Your task to perform on an android device: Go to Google Image 0: 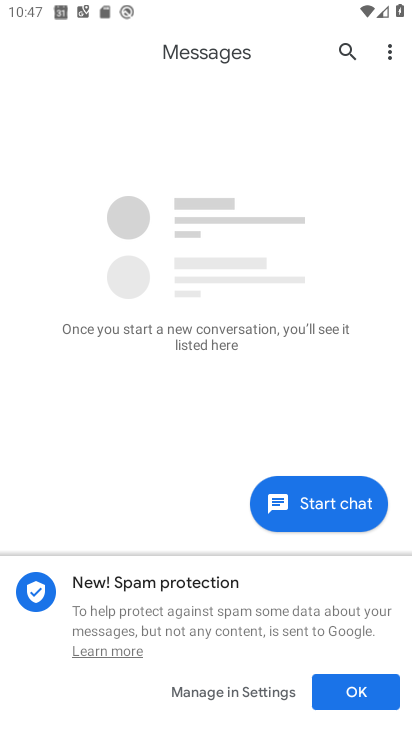
Step 0: press home button
Your task to perform on an android device: Go to Google Image 1: 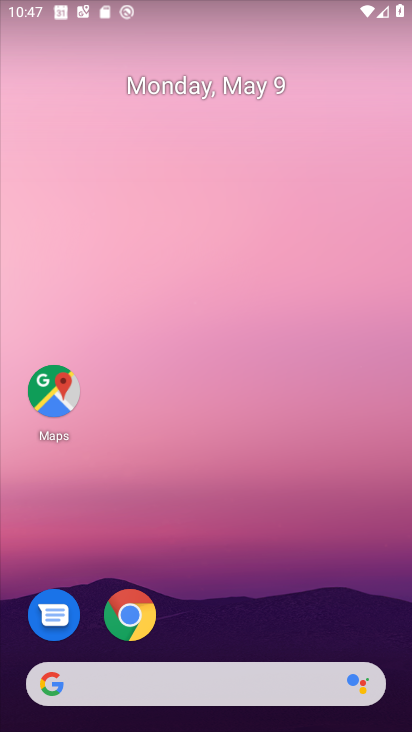
Step 1: drag from (223, 706) to (250, 220)
Your task to perform on an android device: Go to Google Image 2: 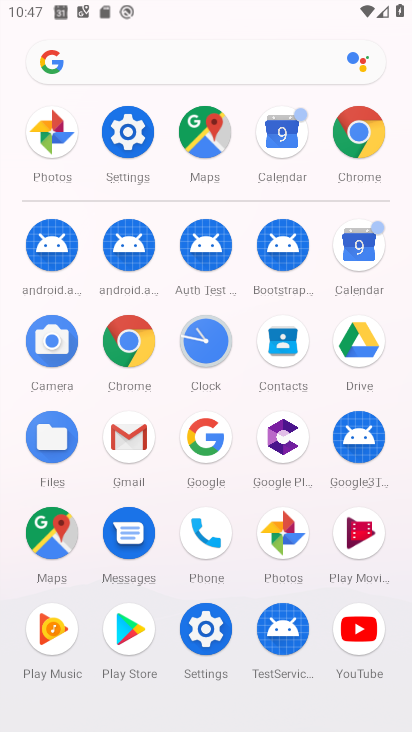
Step 2: click (87, 74)
Your task to perform on an android device: Go to Google Image 3: 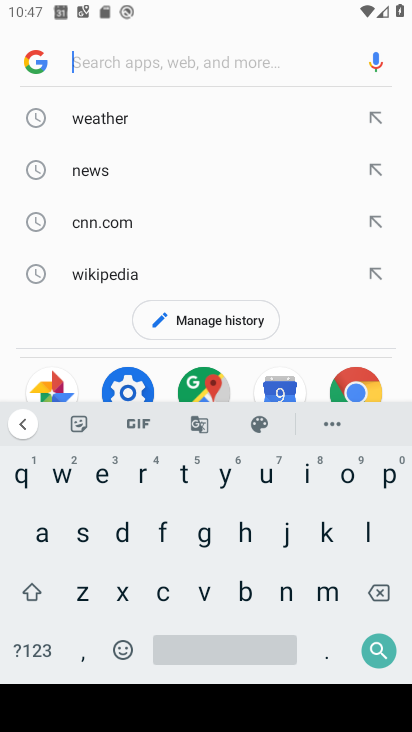
Step 3: click (25, 58)
Your task to perform on an android device: Go to Google Image 4: 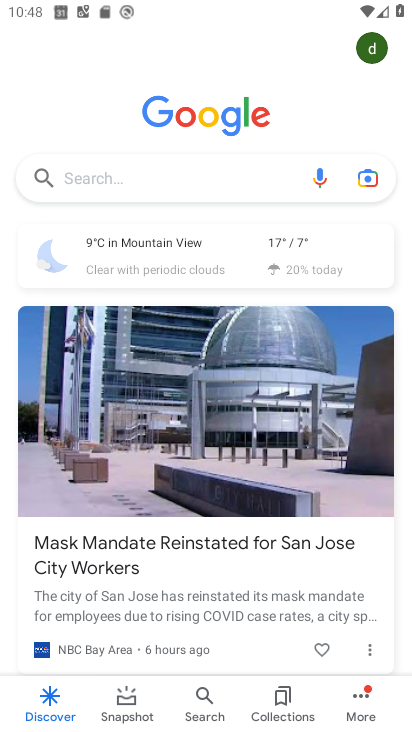
Step 4: task complete